Your task to perform on an android device: change the clock display to analog Image 0: 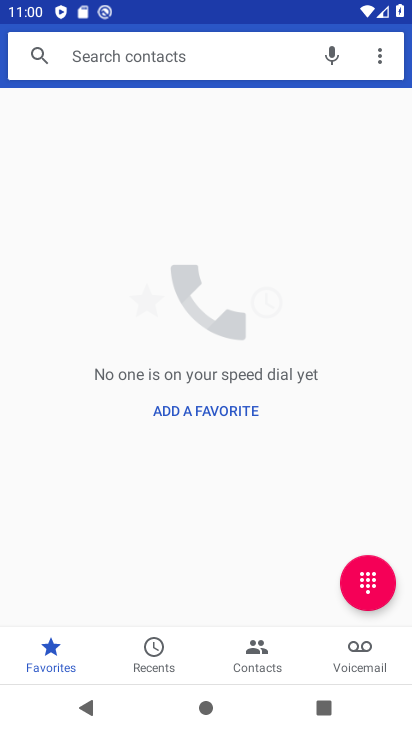
Step 0: press home button
Your task to perform on an android device: change the clock display to analog Image 1: 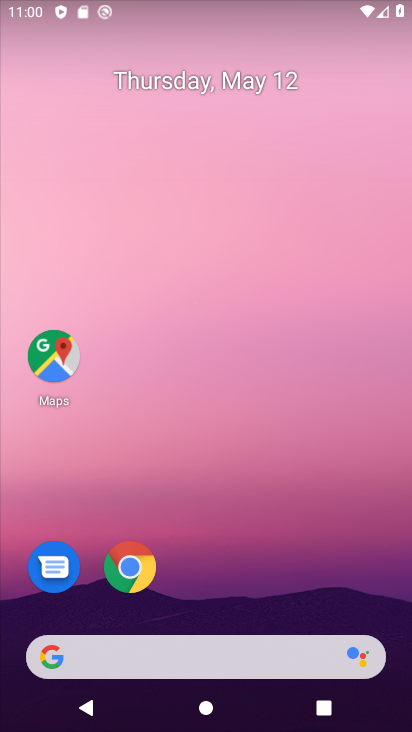
Step 1: drag from (347, 509) to (282, 201)
Your task to perform on an android device: change the clock display to analog Image 2: 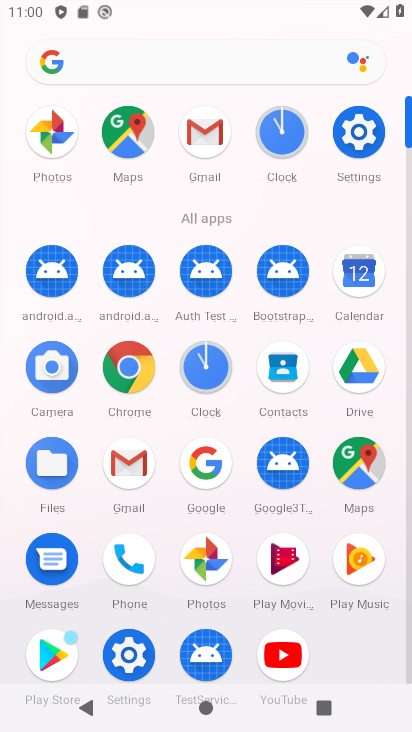
Step 2: click (205, 372)
Your task to perform on an android device: change the clock display to analog Image 3: 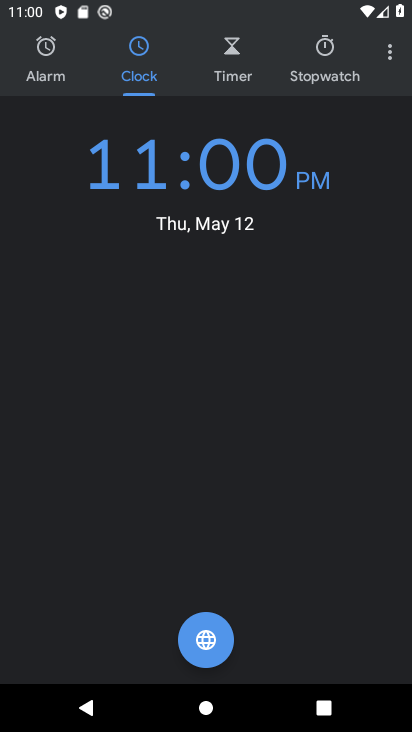
Step 3: click (393, 63)
Your task to perform on an android device: change the clock display to analog Image 4: 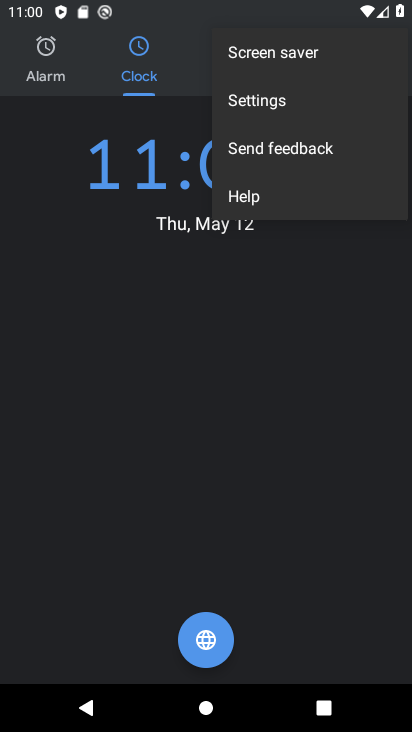
Step 4: click (264, 101)
Your task to perform on an android device: change the clock display to analog Image 5: 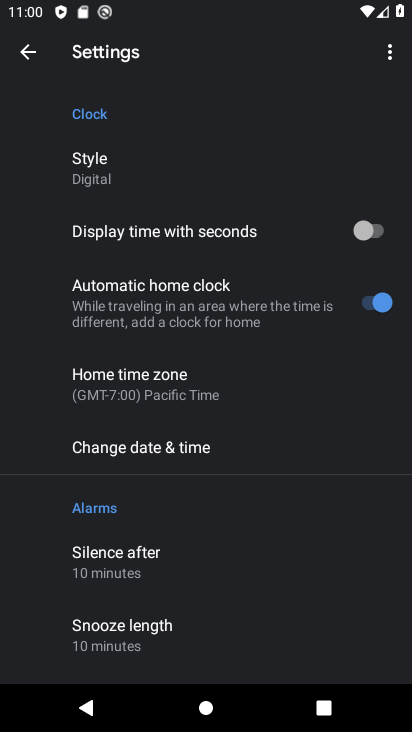
Step 5: click (222, 162)
Your task to perform on an android device: change the clock display to analog Image 6: 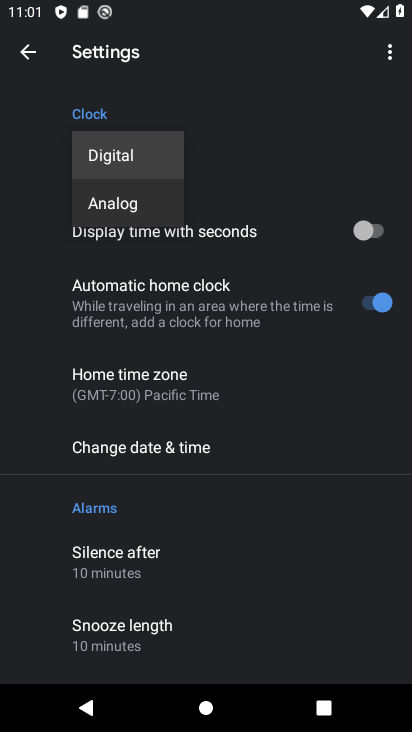
Step 6: click (147, 204)
Your task to perform on an android device: change the clock display to analog Image 7: 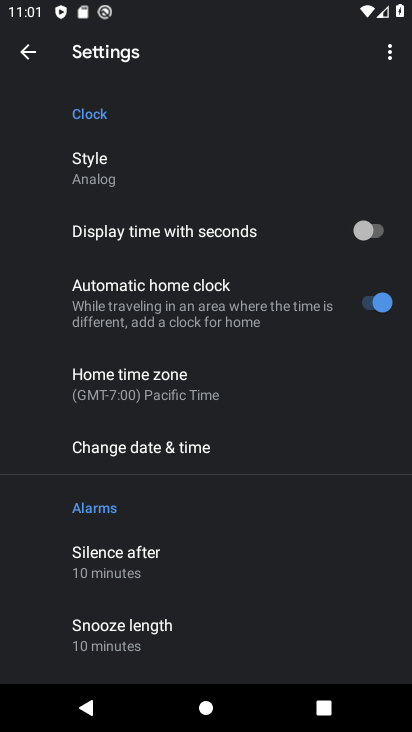
Step 7: task complete